Your task to perform on an android device: Open notification settings Image 0: 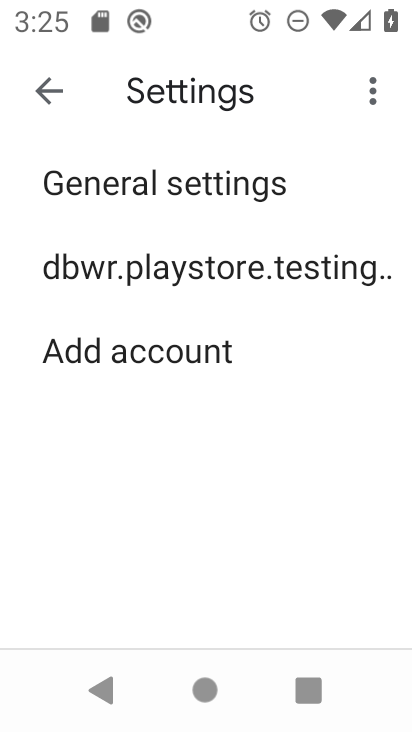
Step 0: press home button
Your task to perform on an android device: Open notification settings Image 1: 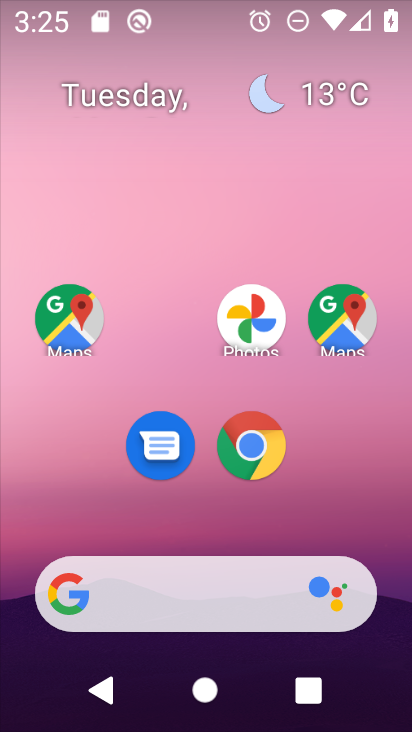
Step 1: drag from (389, 572) to (407, 295)
Your task to perform on an android device: Open notification settings Image 2: 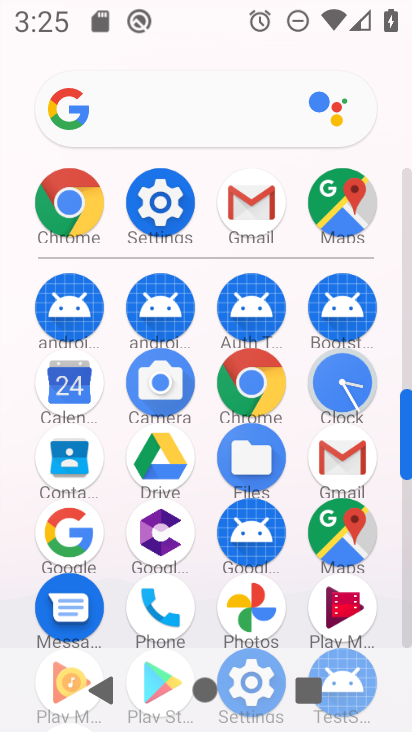
Step 2: drag from (391, 597) to (395, 384)
Your task to perform on an android device: Open notification settings Image 3: 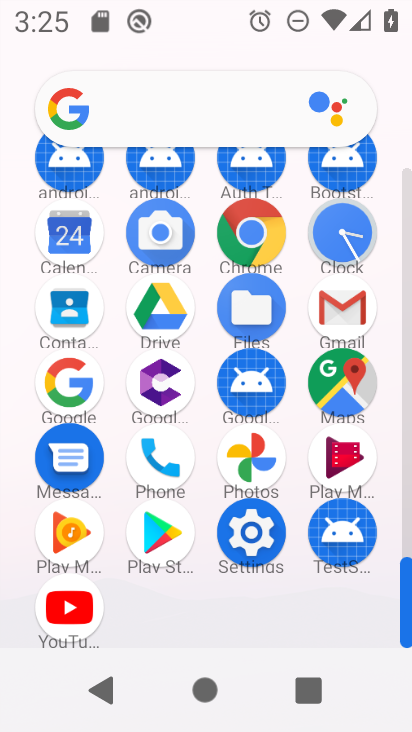
Step 3: click (244, 557)
Your task to perform on an android device: Open notification settings Image 4: 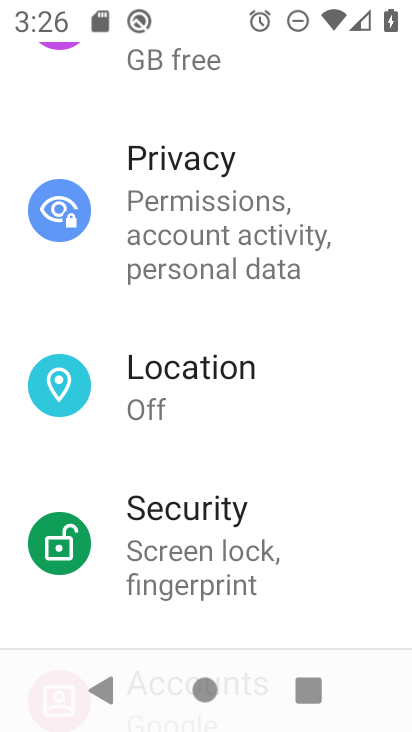
Step 4: drag from (323, 389) to (320, 446)
Your task to perform on an android device: Open notification settings Image 5: 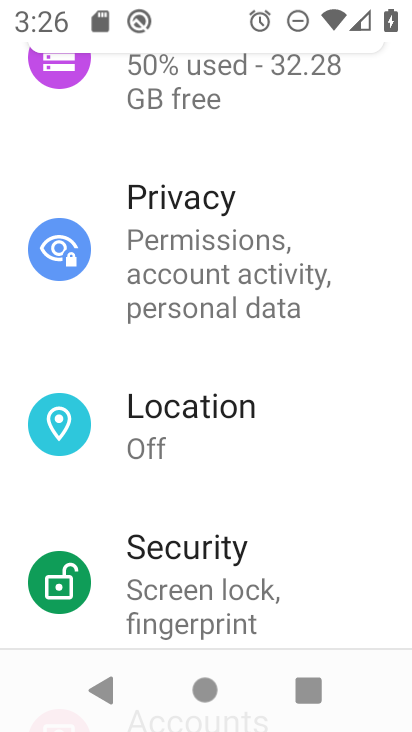
Step 5: drag from (322, 390) to (327, 449)
Your task to perform on an android device: Open notification settings Image 6: 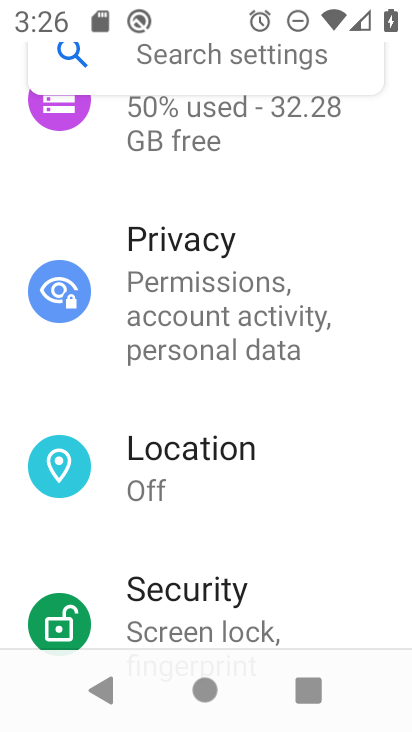
Step 6: drag from (349, 387) to (355, 445)
Your task to perform on an android device: Open notification settings Image 7: 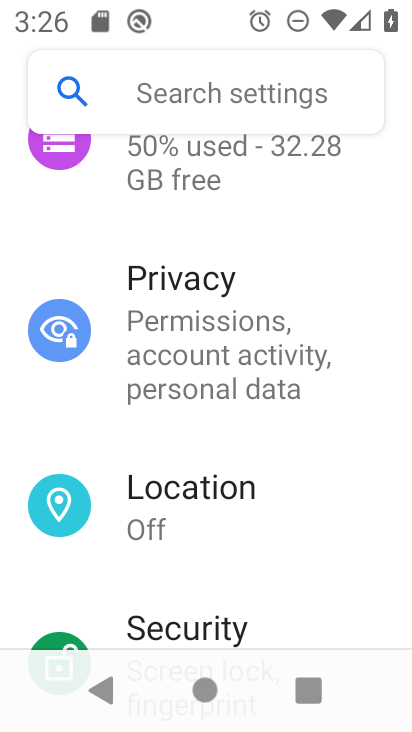
Step 7: drag from (356, 372) to (357, 456)
Your task to perform on an android device: Open notification settings Image 8: 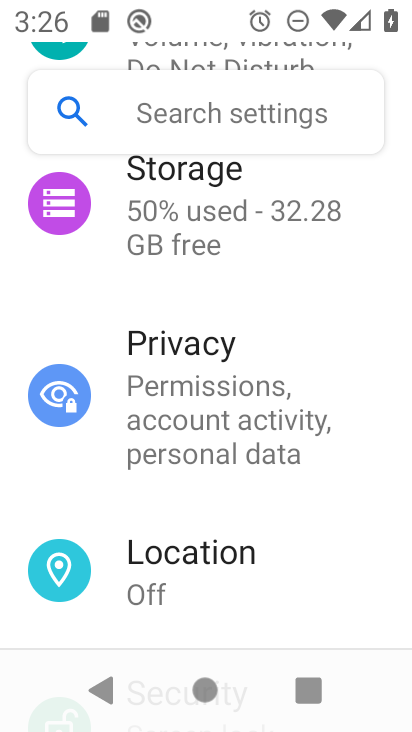
Step 8: drag from (356, 390) to (357, 477)
Your task to perform on an android device: Open notification settings Image 9: 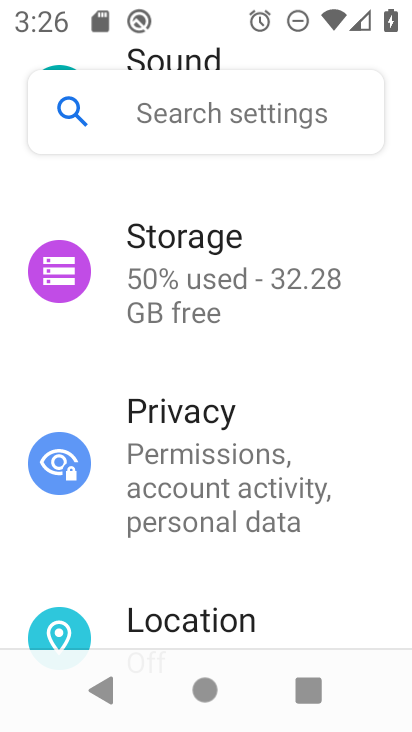
Step 9: drag from (354, 396) to (352, 467)
Your task to perform on an android device: Open notification settings Image 10: 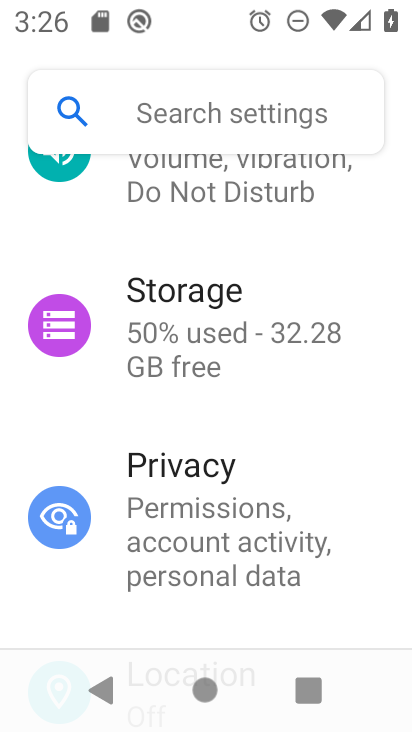
Step 10: drag from (348, 379) to (351, 469)
Your task to perform on an android device: Open notification settings Image 11: 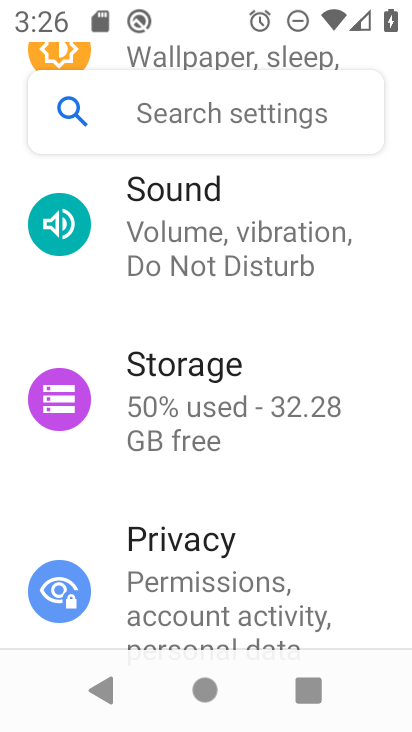
Step 11: drag from (351, 394) to (351, 470)
Your task to perform on an android device: Open notification settings Image 12: 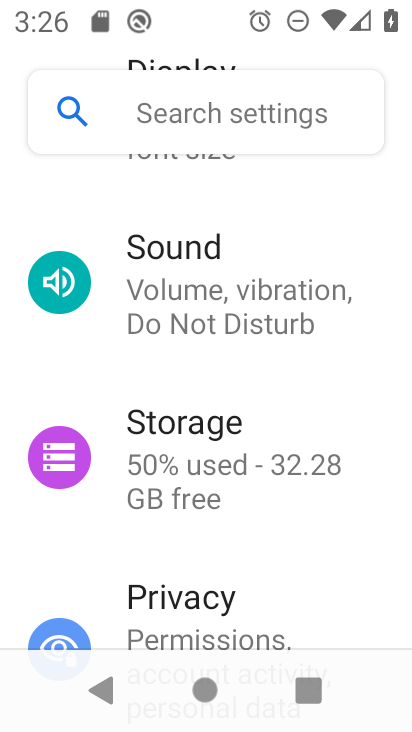
Step 12: drag from (352, 423) to (354, 498)
Your task to perform on an android device: Open notification settings Image 13: 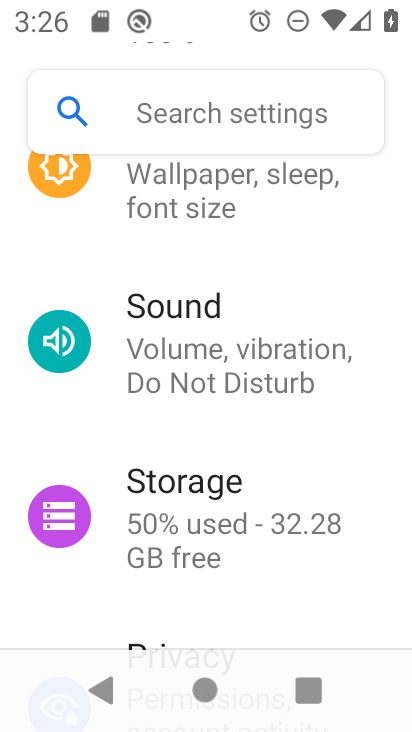
Step 13: drag from (355, 396) to (356, 487)
Your task to perform on an android device: Open notification settings Image 14: 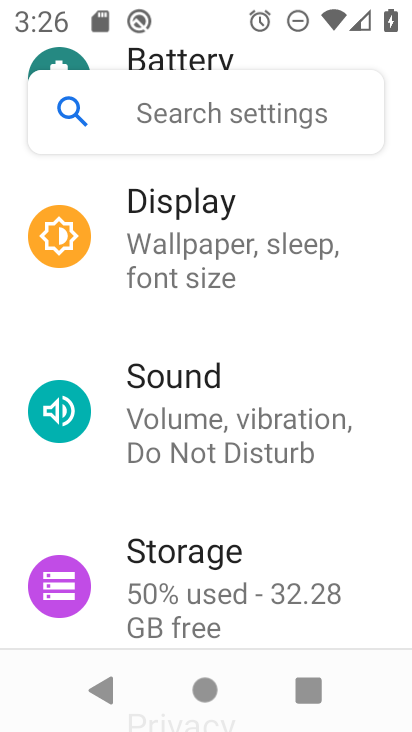
Step 14: drag from (351, 382) to (357, 450)
Your task to perform on an android device: Open notification settings Image 15: 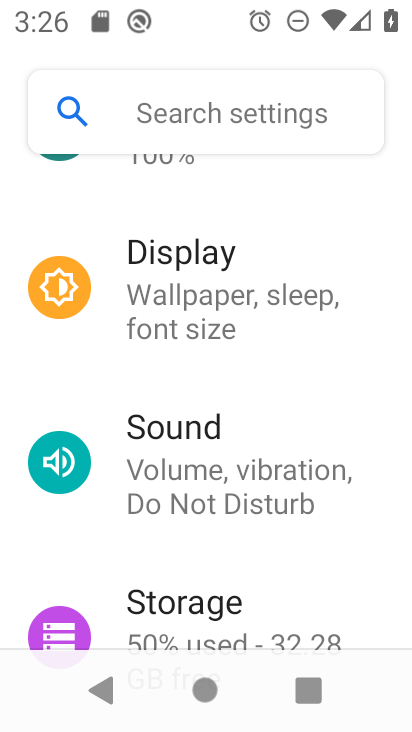
Step 15: drag from (354, 402) to (357, 486)
Your task to perform on an android device: Open notification settings Image 16: 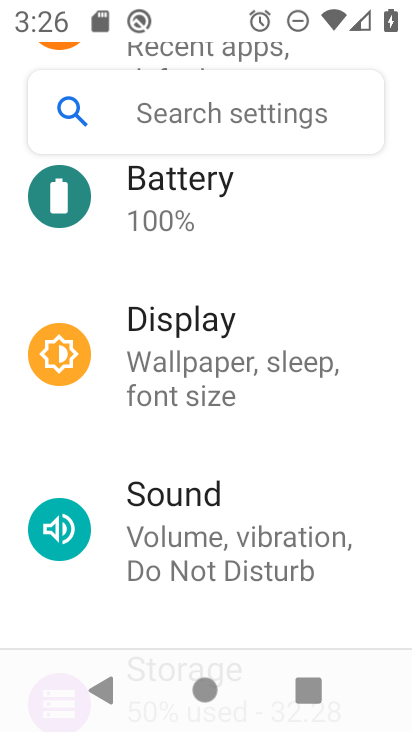
Step 16: drag from (353, 397) to (358, 490)
Your task to perform on an android device: Open notification settings Image 17: 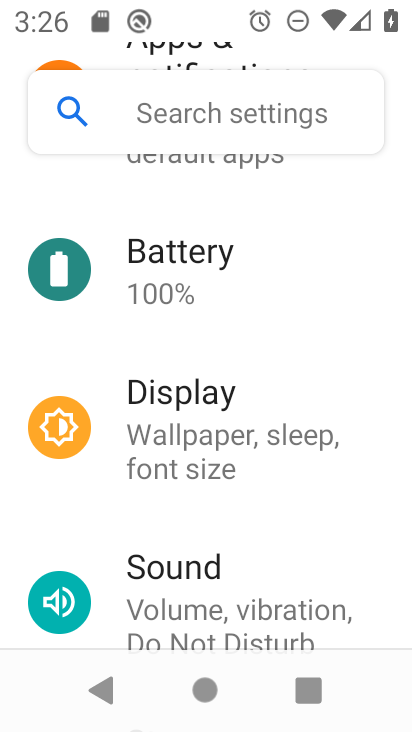
Step 17: drag from (349, 412) to (356, 516)
Your task to perform on an android device: Open notification settings Image 18: 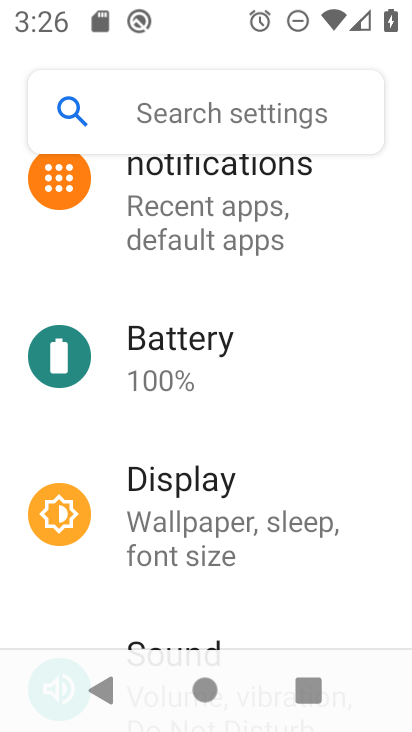
Step 18: drag from (361, 431) to (364, 549)
Your task to perform on an android device: Open notification settings Image 19: 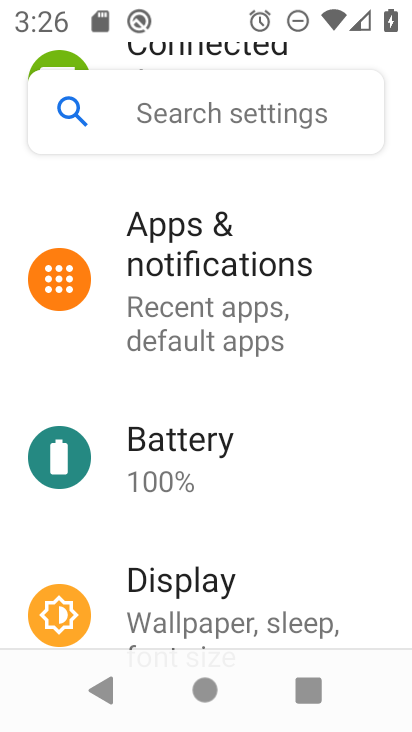
Step 19: drag from (351, 443) to (356, 537)
Your task to perform on an android device: Open notification settings Image 20: 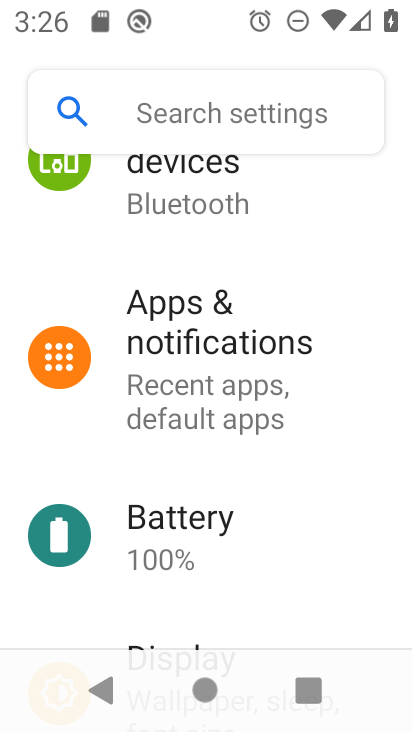
Step 20: drag from (349, 464) to (347, 573)
Your task to perform on an android device: Open notification settings Image 21: 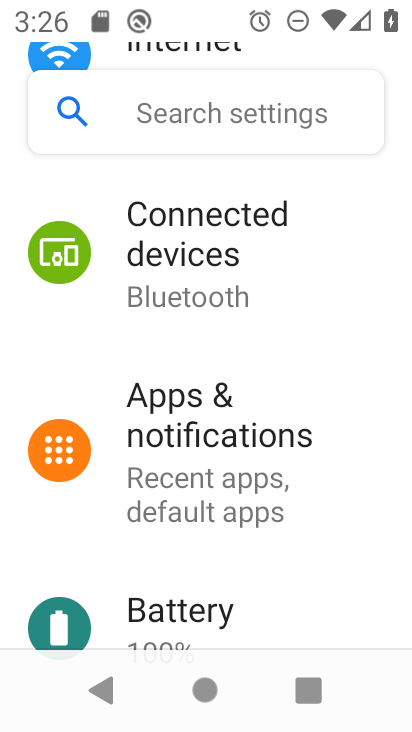
Step 21: click (275, 463)
Your task to perform on an android device: Open notification settings Image 22: 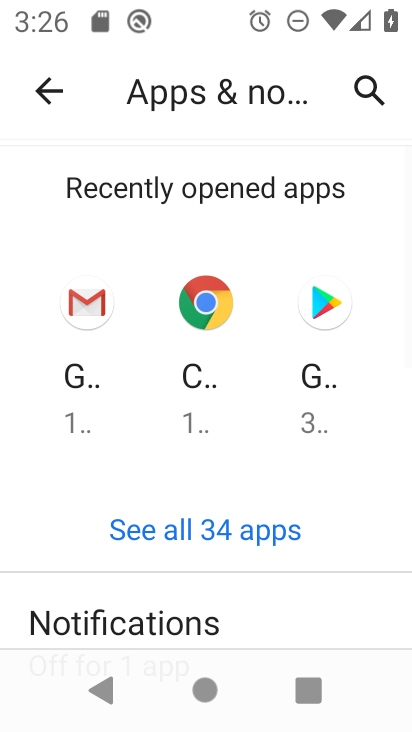
Step 22: click (115, 623)
Your task to perform on an android device: Open notification settings Image 23: 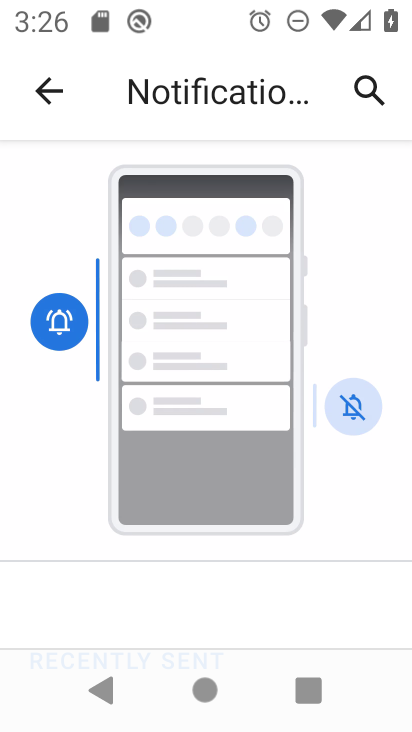
Step 23: task complete